Your task to perform on an android device: Open eBay Image 0: 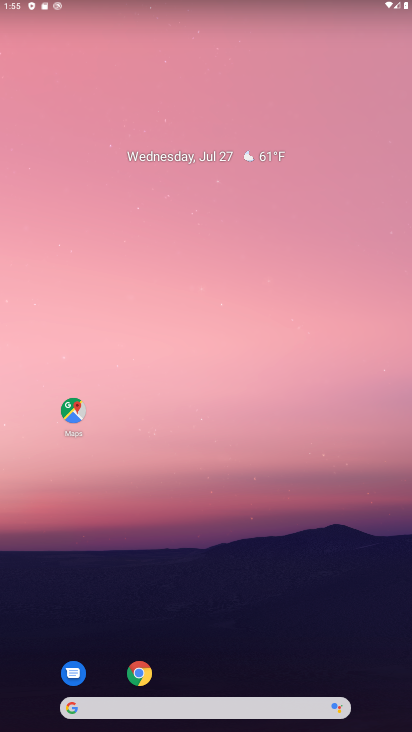
Step 0: click (147, 672)
Your task to perform on an android device: Open eBay Image 1: 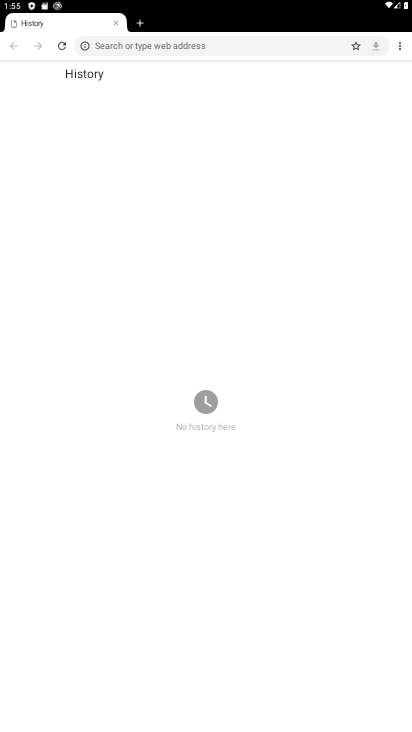
Step 1: click (136, 28)
Your task to perform on an android device: Open eBay Image 2: 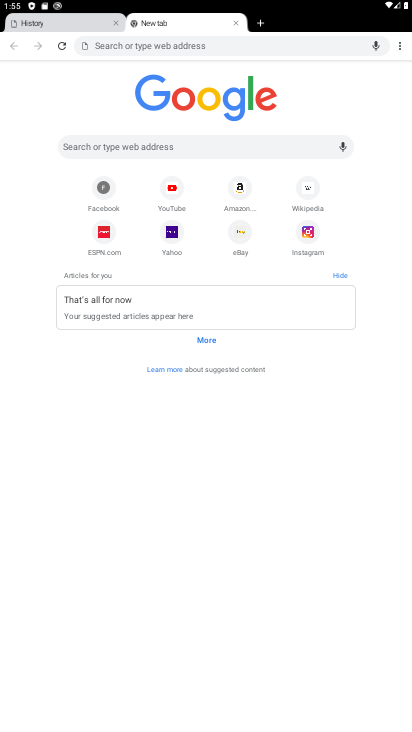
Step 2: click (234, 232)
Your task to perform on an android device: Open eBay Image 3: 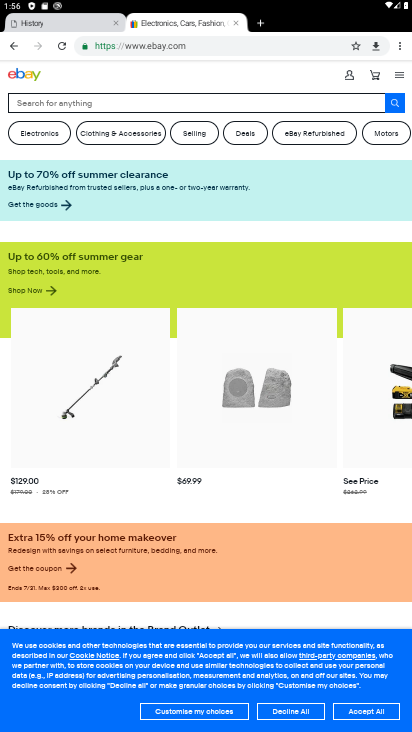
Step 3: task complete